Your task to perform on an android device: toggle sleep mode Image 0: 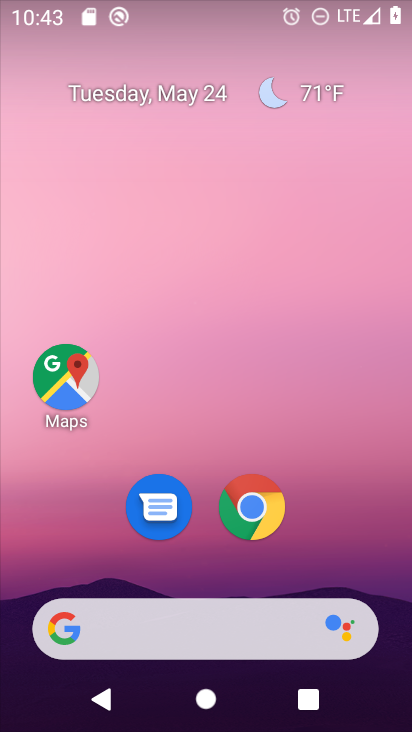
Step 0: drag from (227, 720) to (238, 0)
Your task to perform on an android device: toggle sleep mode Image 1: 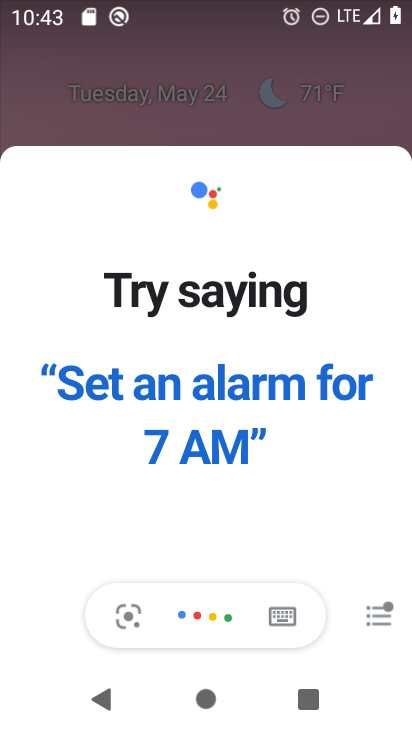
Step 1: press home button
Your task to perform on an android device: toggle sleep mode Image 2: 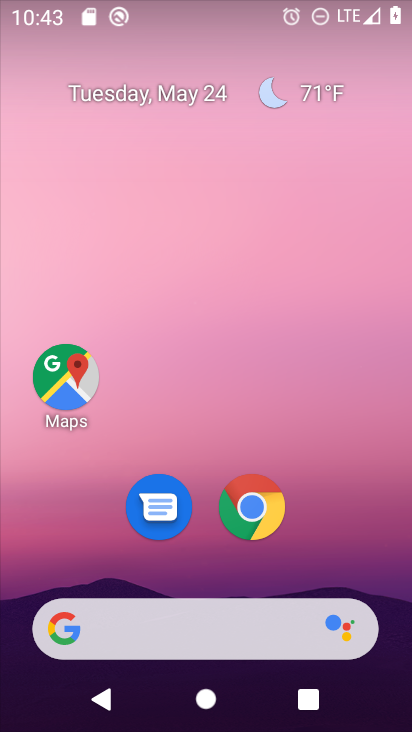
Step 2: drag from (230, 718) to (230, 90)
Your task to perform on an android device: toggle sleep mode Image 3: 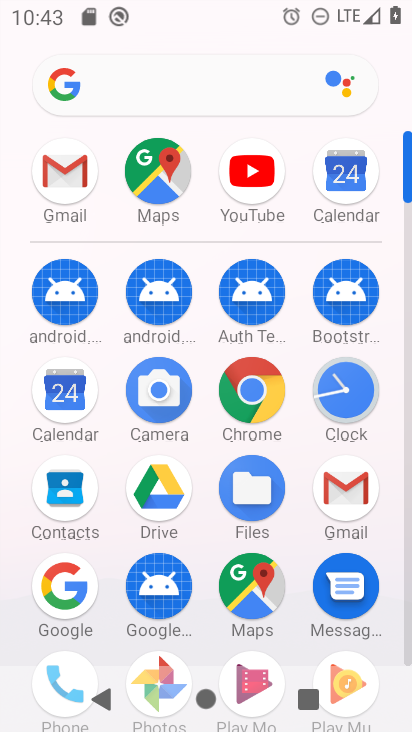
Step 3: drag from (216, 627) to (225, 190)
Your task to perform on an android device: toggle sleep mode Image 4: 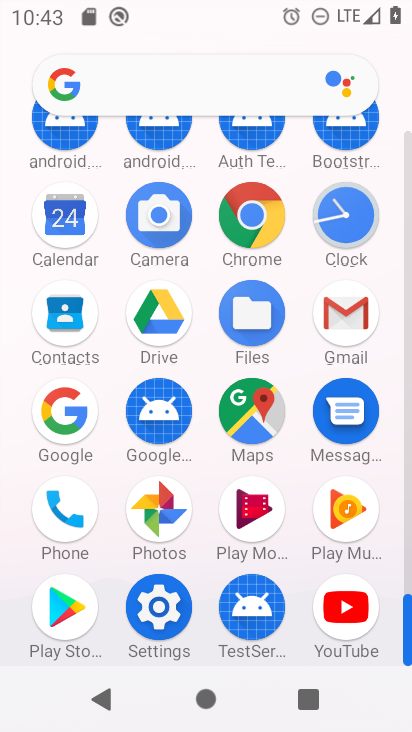
Step 4: click (156, 607)
Your task to perform on an android device: toggle sleep mode Image 5: 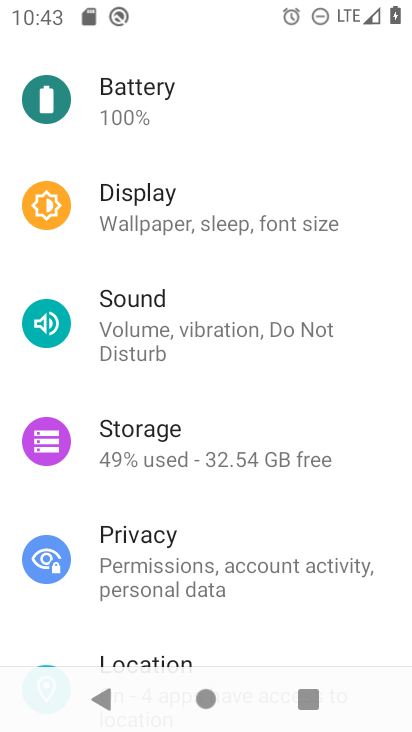
Step 5: task complete